Your task to perform on an android device: Go to eBay Image 0: 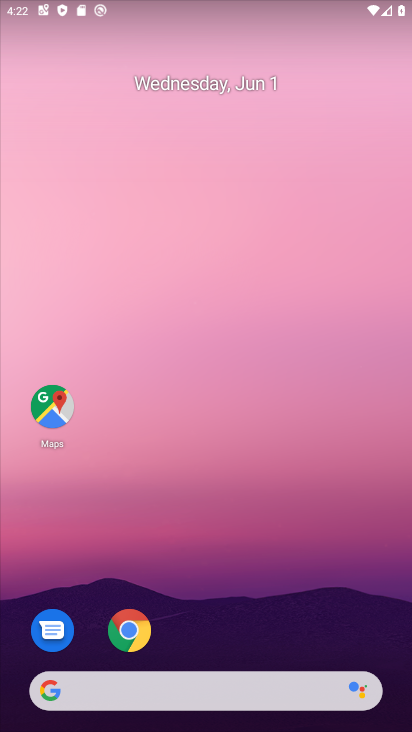
Step 0: click (141, 615)
Your task to perform on an android device: Go to eBay Image 1: 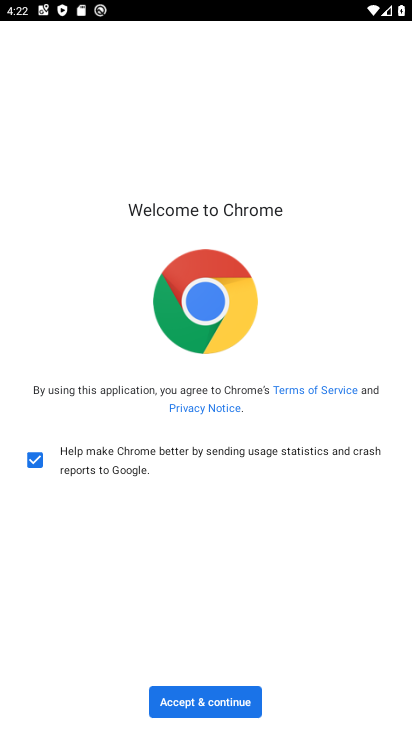
Step 1: click (197, 690)
Your task to perform on an android device: Go to eBay Image 2: 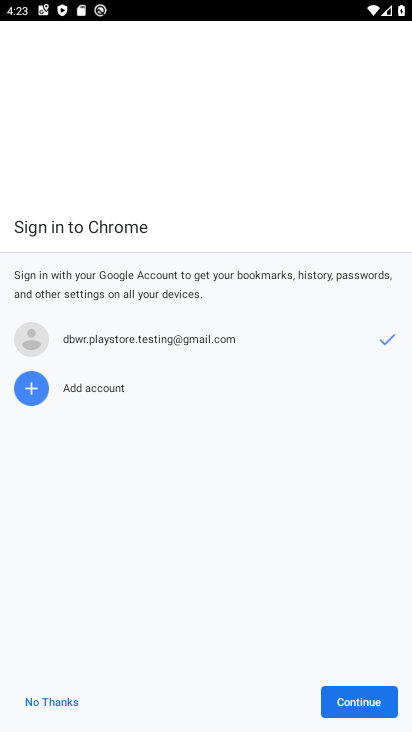
Step 2: press home button
Your task to perform on an android device: Go to eBay Image 3: 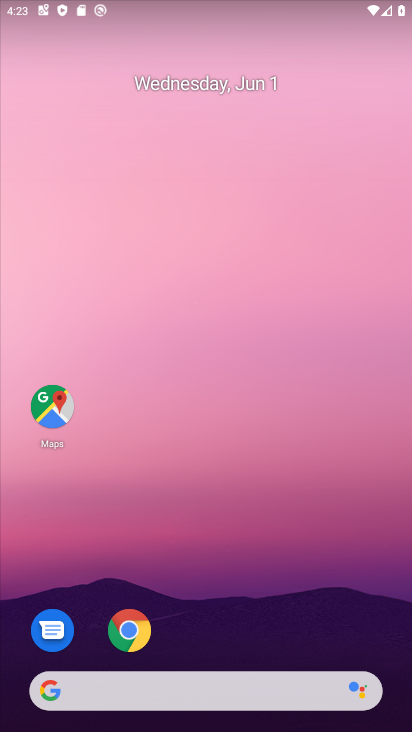
Step 3: click (111, 631)
Your task to perform on an android device: Go to eBay Image 4: 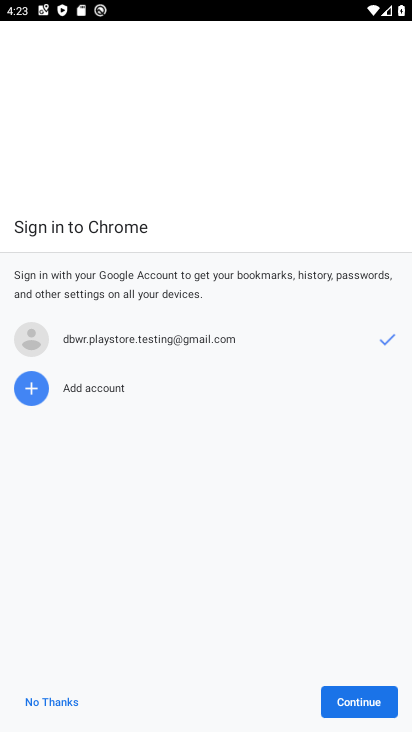
Step 4: click (358, 705)
Your task to perform on an android device: Go to eBay Image 5: 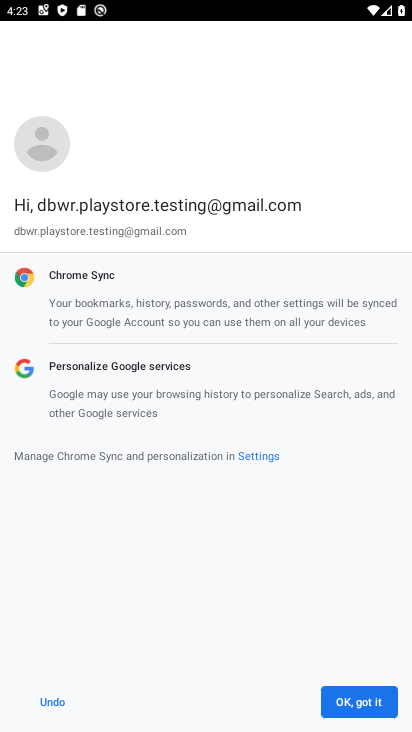
Step 5: click (376, 714)
Your task to perform on an android device: Go to eBay Image 6: 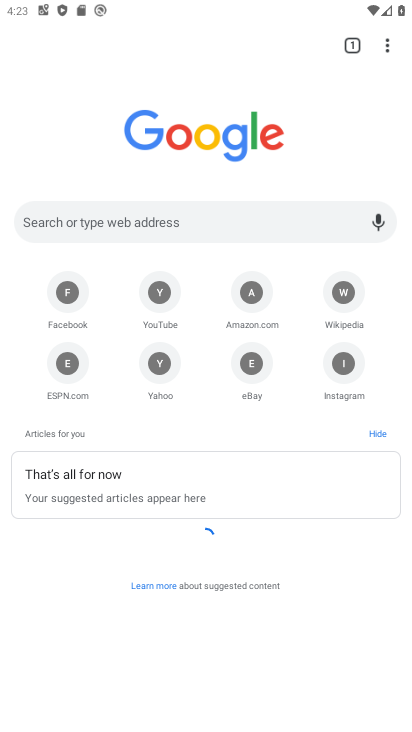
Step 6: click (158, 227)
Your task to perform on an android device: Go to eBay Image 7: 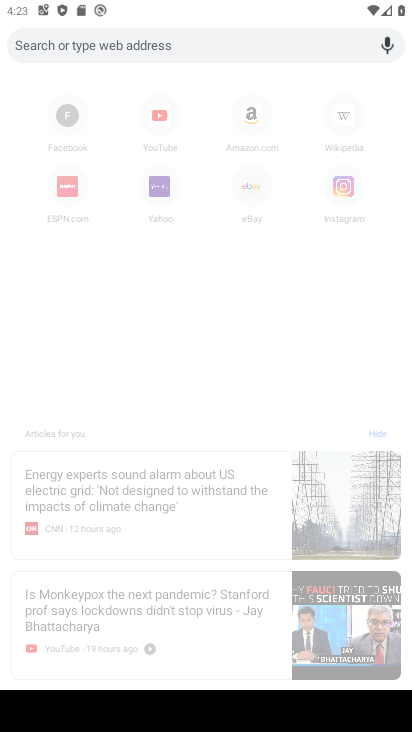
Step 7: type "ebay"
Your task to perform on an android device: Go to eBay Image 8: 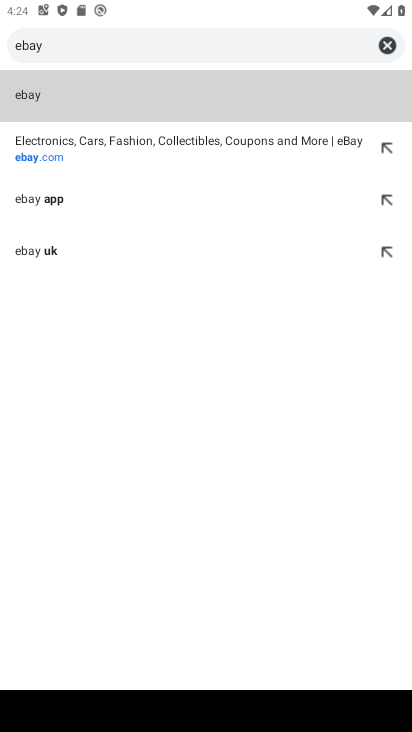
Step 8: click (15, 98)
Your task to perform on an android device: Go to eBay Image 9: 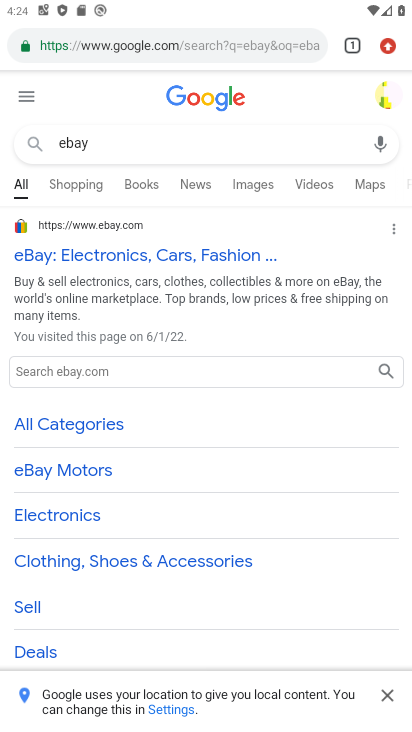
Step 9: click (87, 251)
Your task to perform on an android device: Go to eBay Image 10: 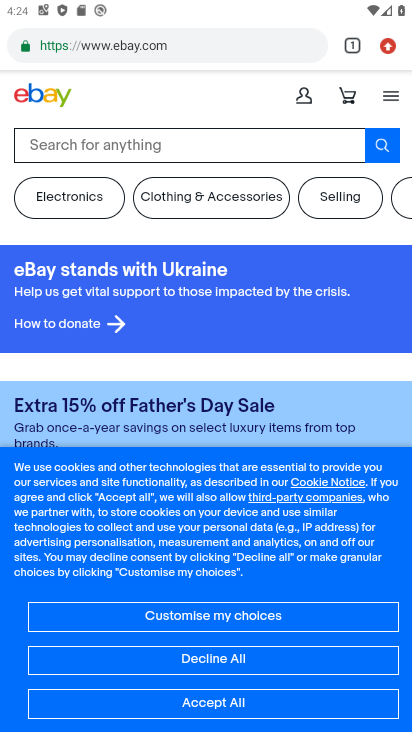
Step 10: task complete